Your task to perform on an android device: uninstall "WhatsApp Messenger" Image 0: 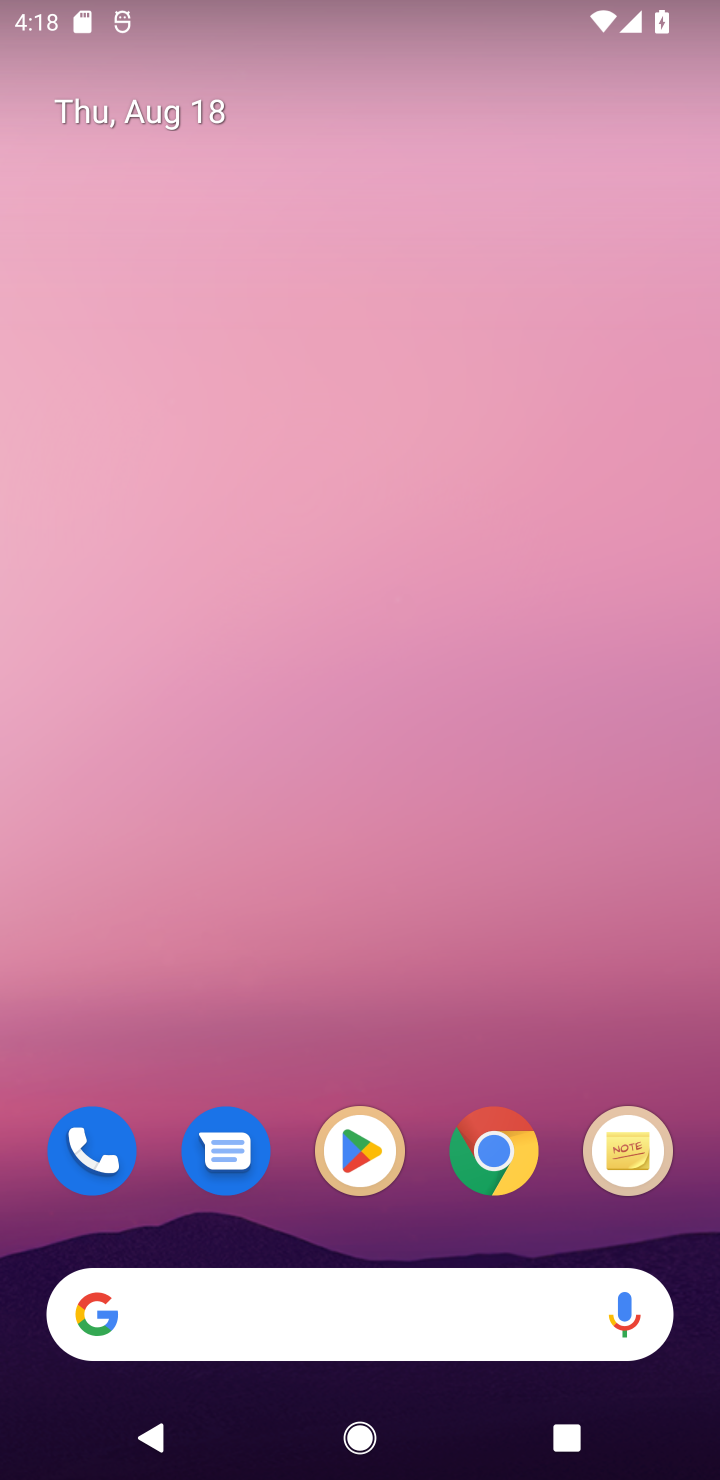
Step 0: click (404, 1170)
Your task to perform on an android device: uninstall "WhatsApp Messenger" Image 1: 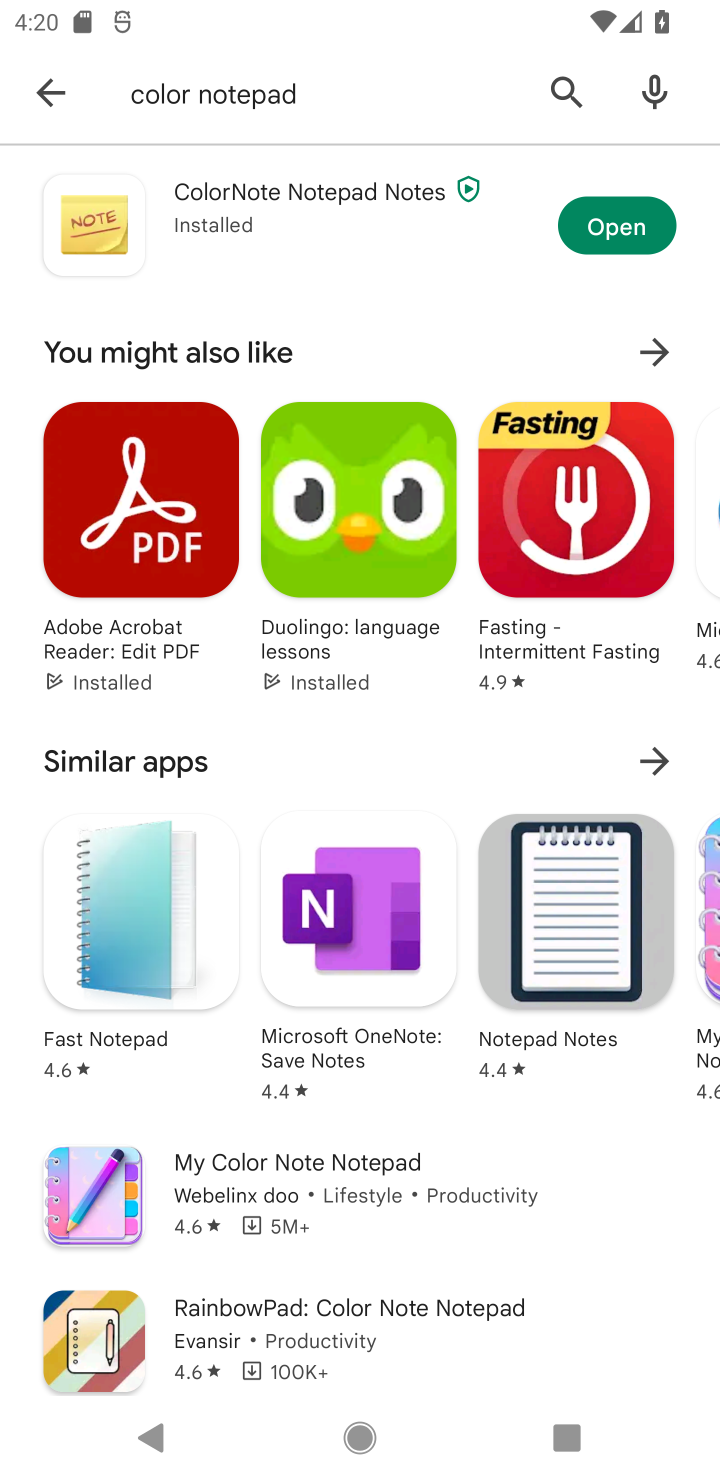
Step 1: click (582, 103)
Your task to perform on an android device: uninstall "WhatsApp Messenger" Image 2: 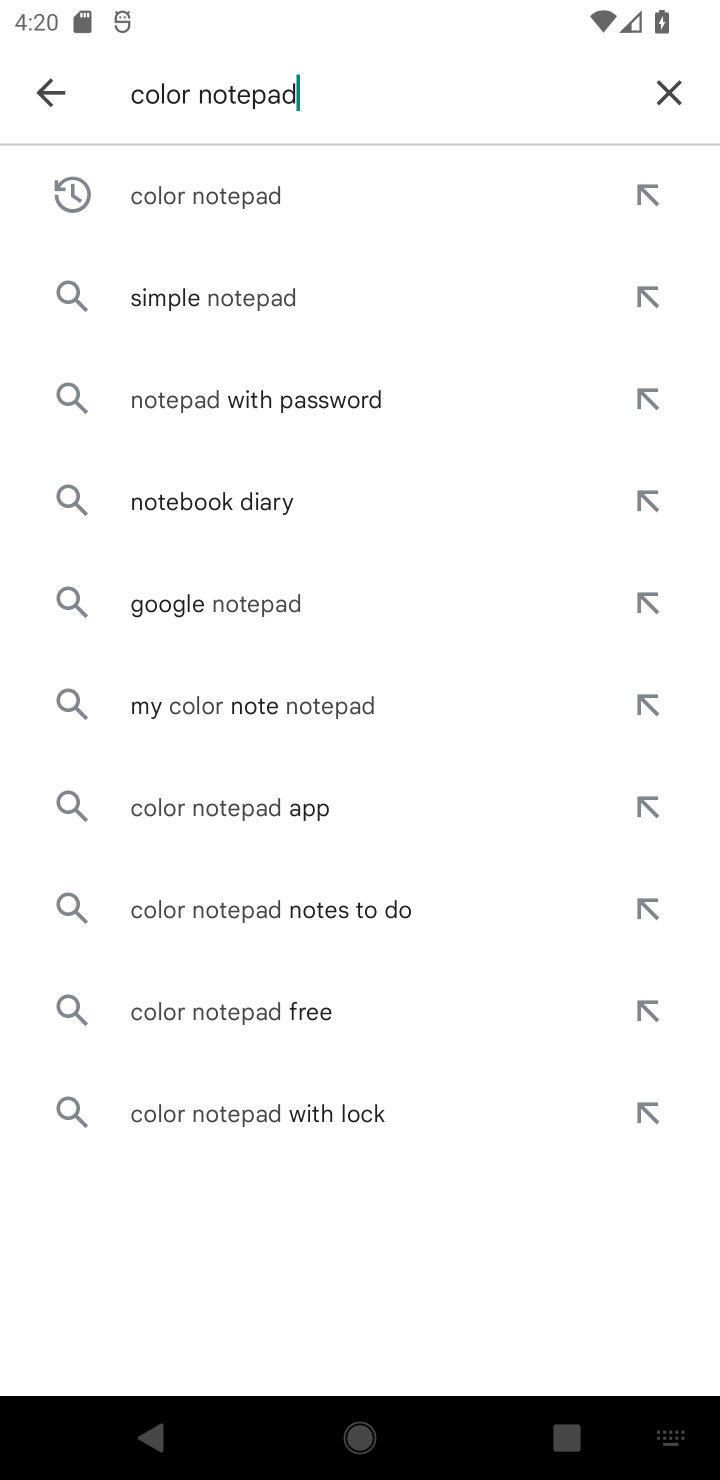
Step 2: click (638, 81)
Your task to perform on an android device: uninstall "WhatsApp Messenger" Image 3: 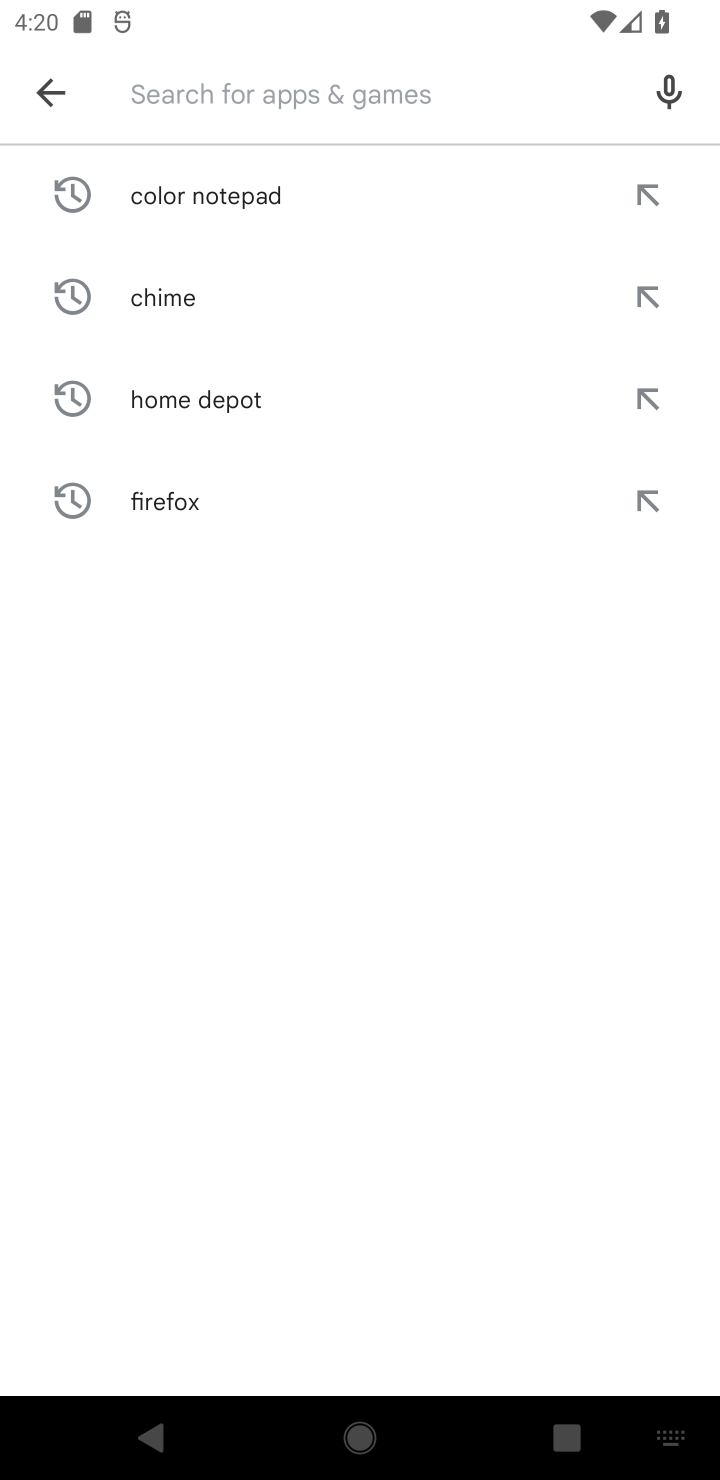
Step 3: type "whatsapp"
Your task to perform on an android device: uninstall "WhatsApp Messenger" Image 4: 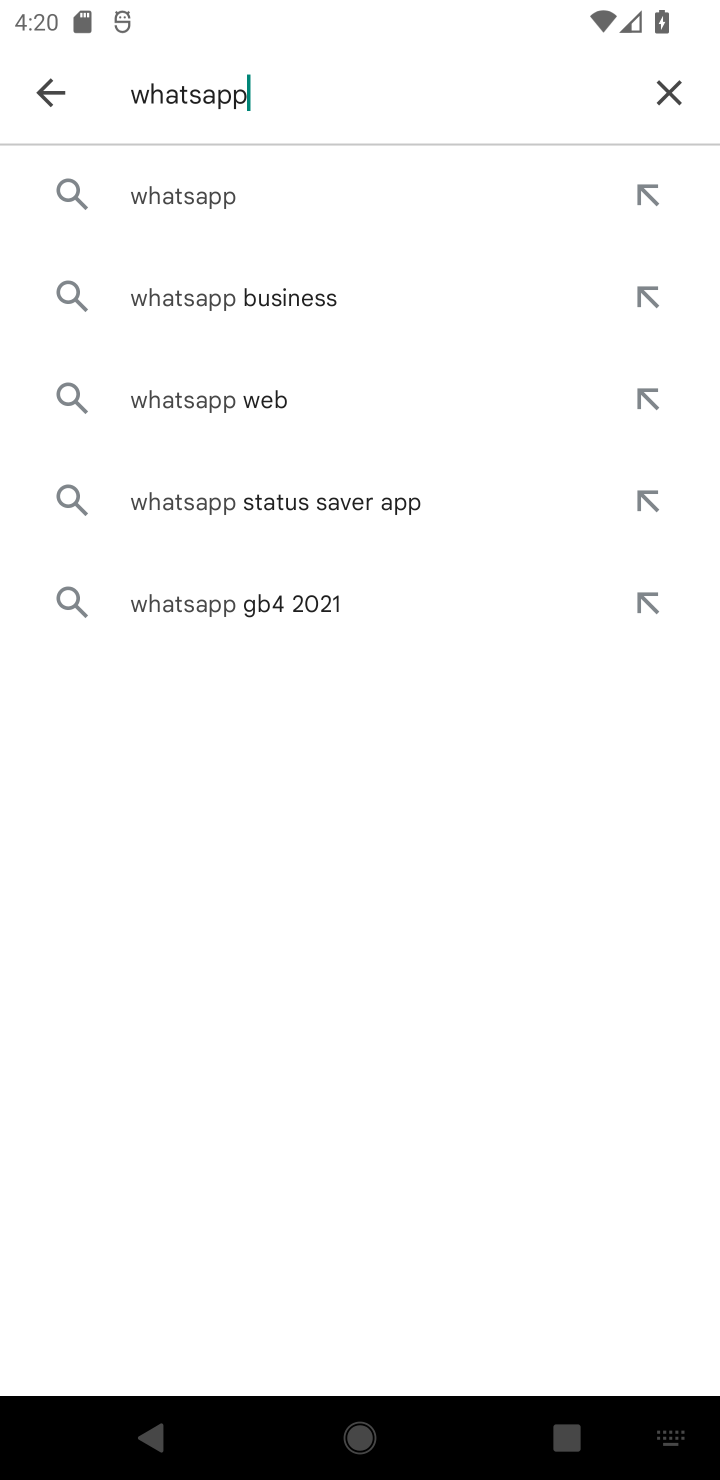
Step 4: click (385, 169)
Your task to perform on an android device: uninstall "WhatsApp Messenger" Image 5: 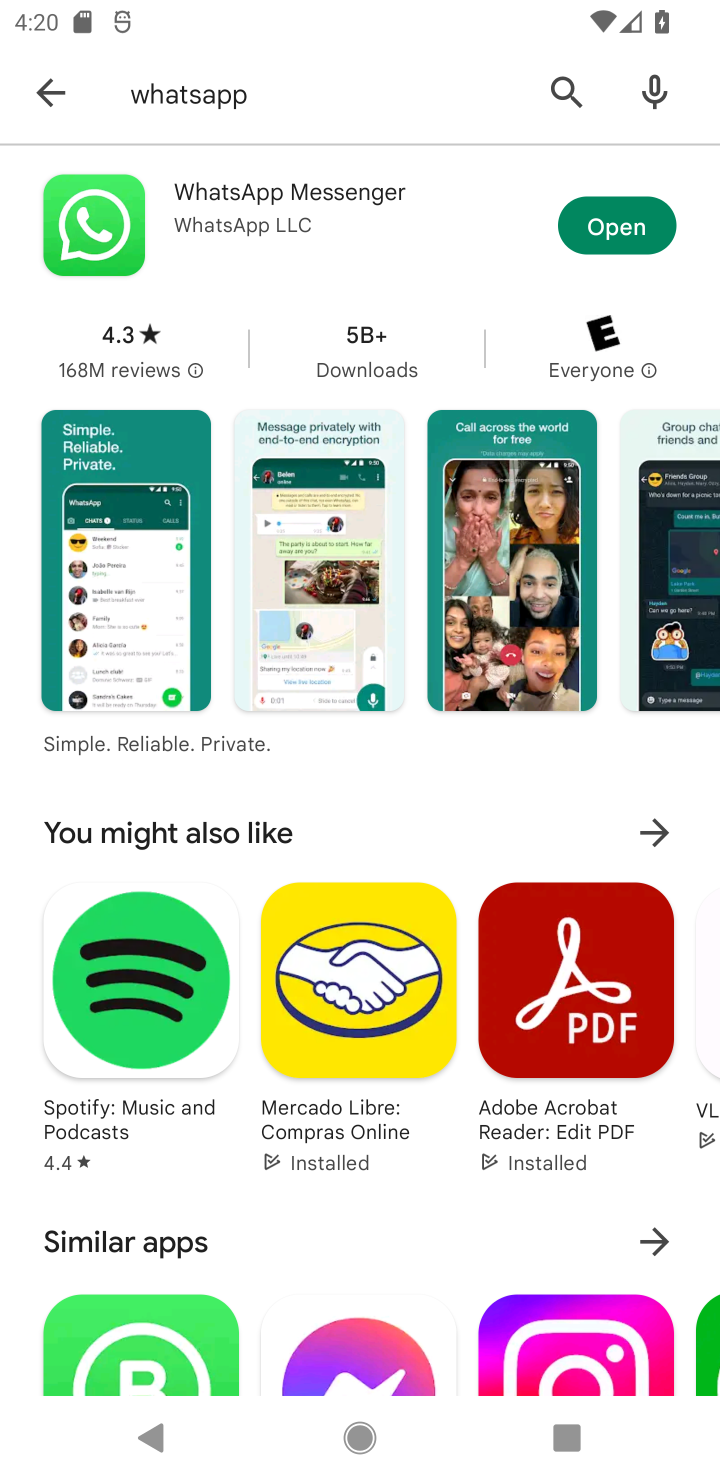
Step 5: click (359, 230)
Your task to perform on an android device: uninstall "WhatsApp Messenger" Image 6: 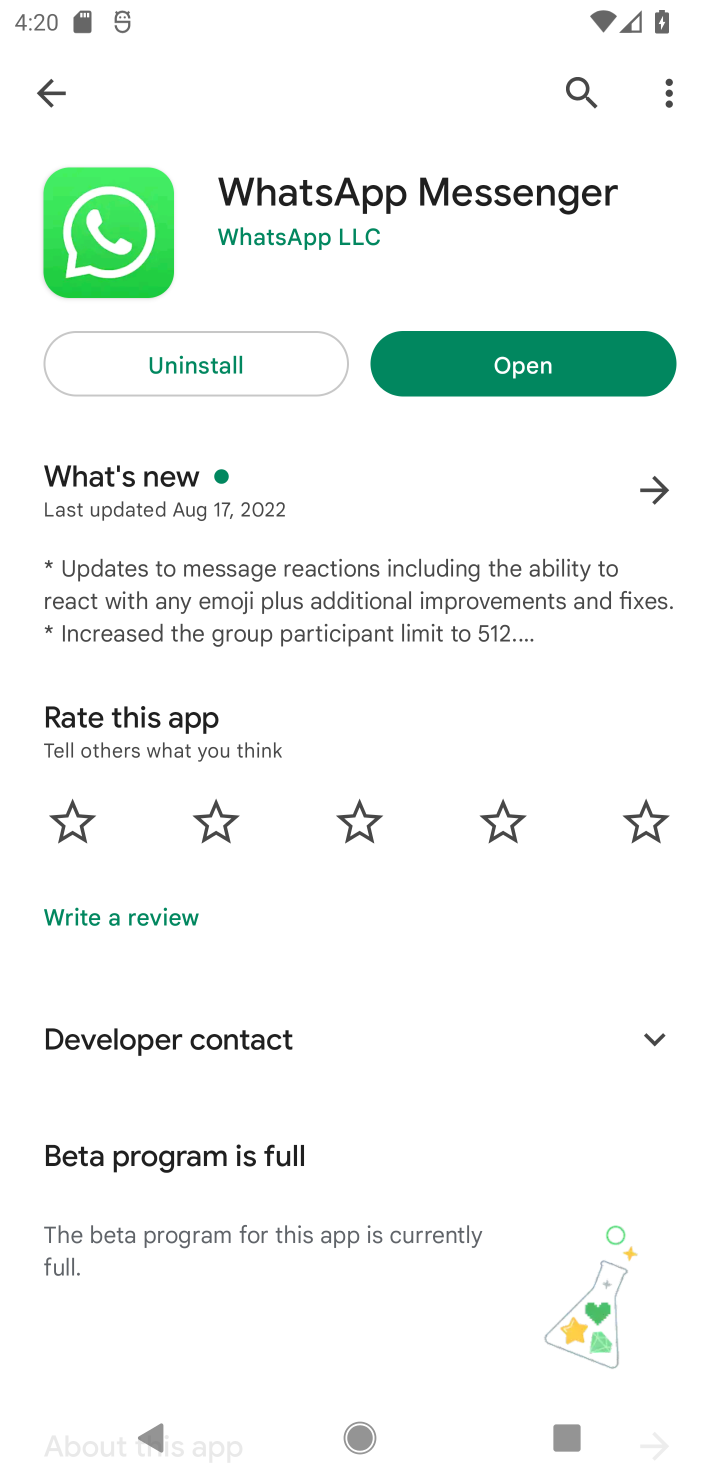
Step 6: click (249, 382)
Your task to perform on an android device: uninstall "WhatsApp Messenger" Image 7: 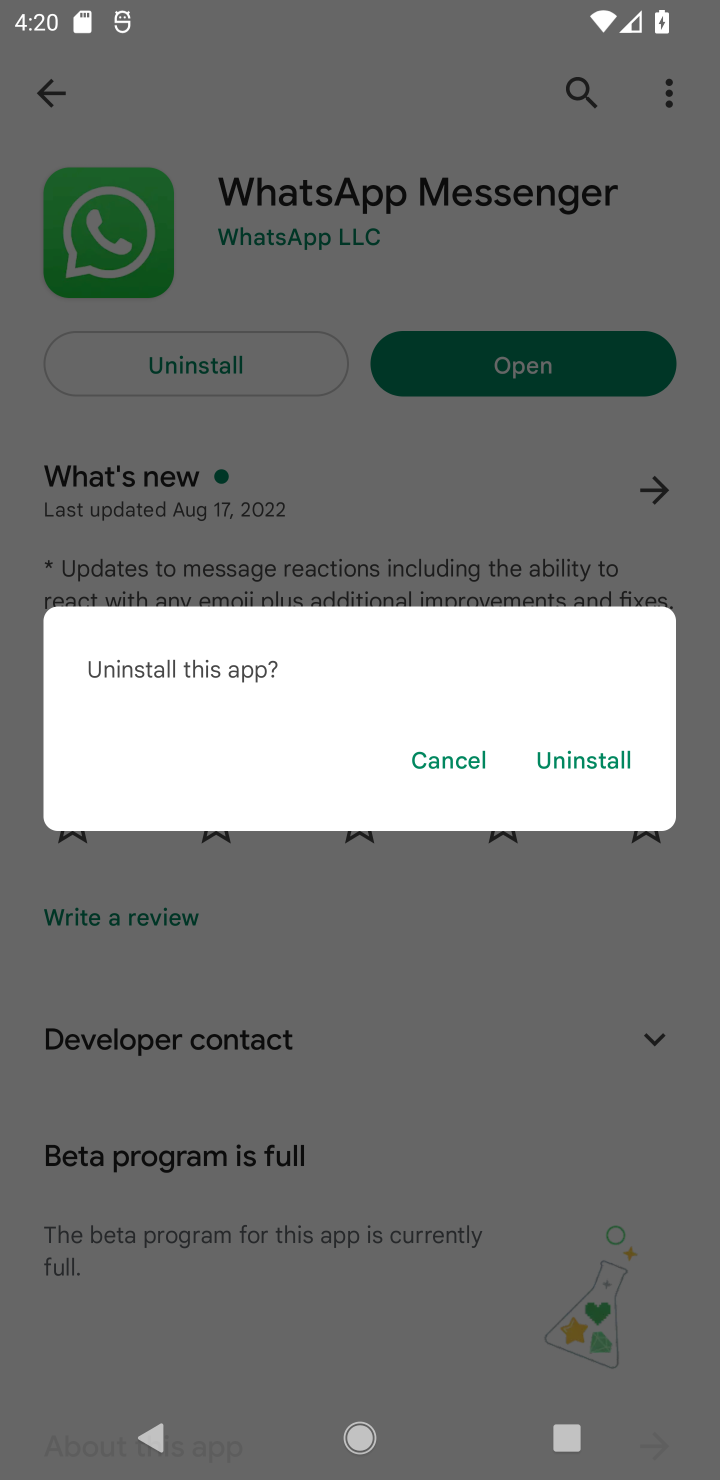
Step 7: click (580, 767)
Your task to perform on an android device: uninstall "WhatsApp Messenger" Image 8: 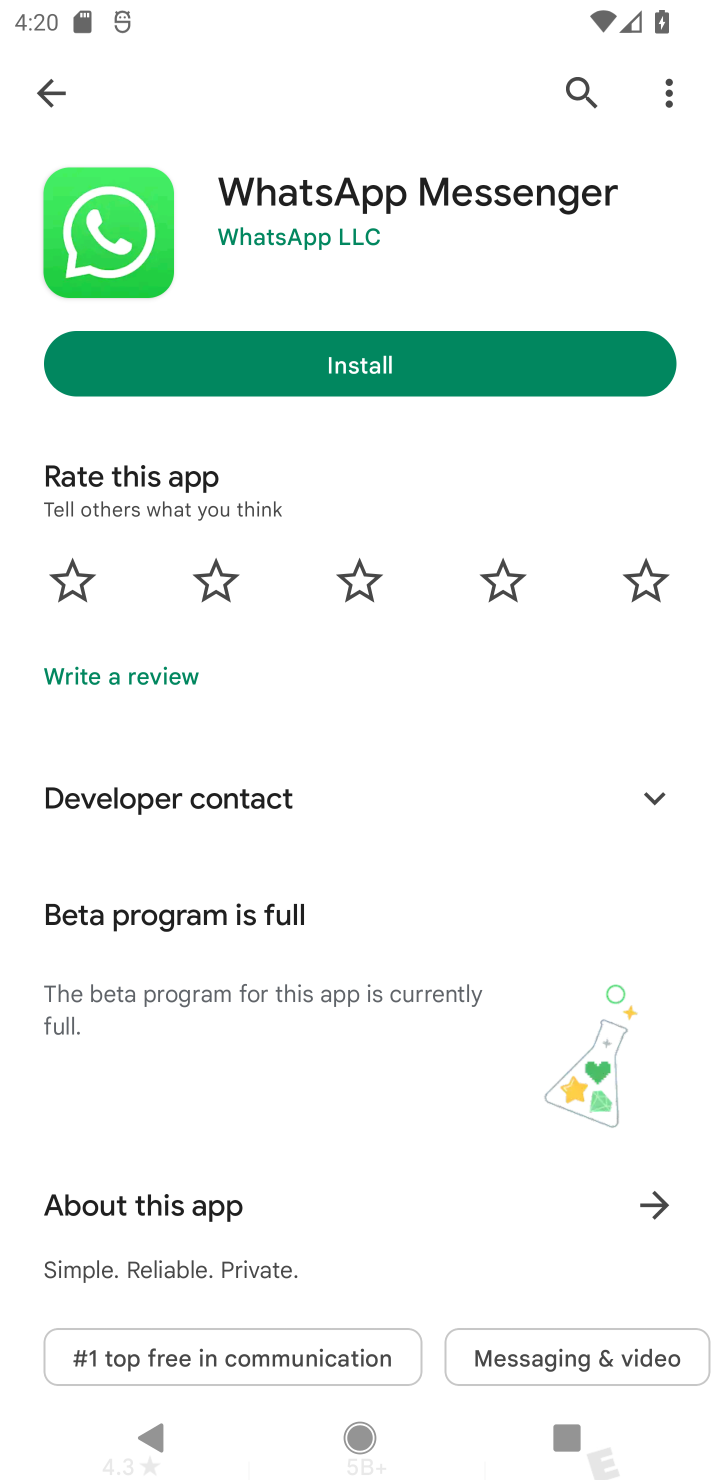
Step 8: task complete